Your task to perform on an android device: turn off location history Image 0: 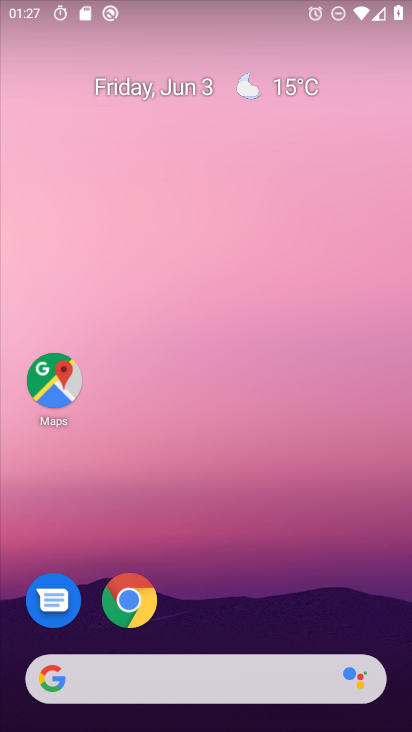
Step 0: drag from (207, 576) to (174, 3)
Your task to perform on an android device: turn off location history Image 1: 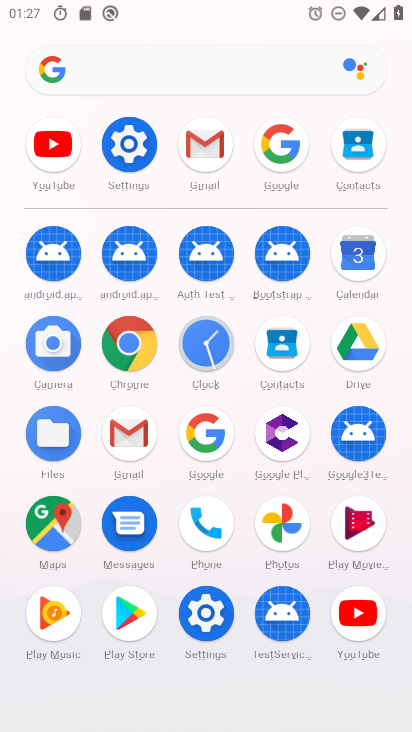
Step 1: click (126, 178)
Your task to perform on an android device: turn off location history Image 2: 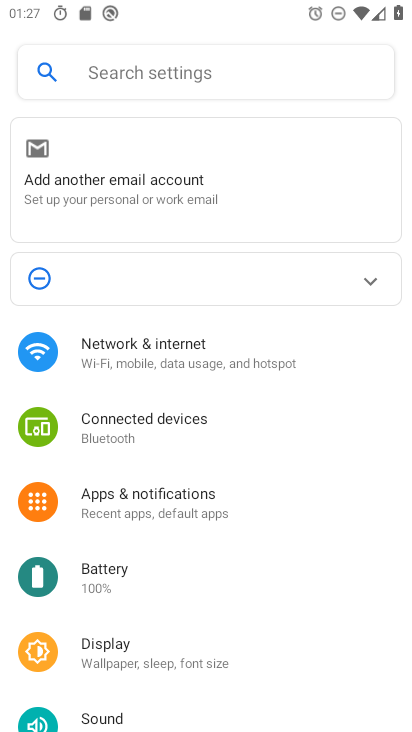
Step 2: drag from (204, 590) to (194, 114)
Your task to perform on an android device: turn off location history Image 3: 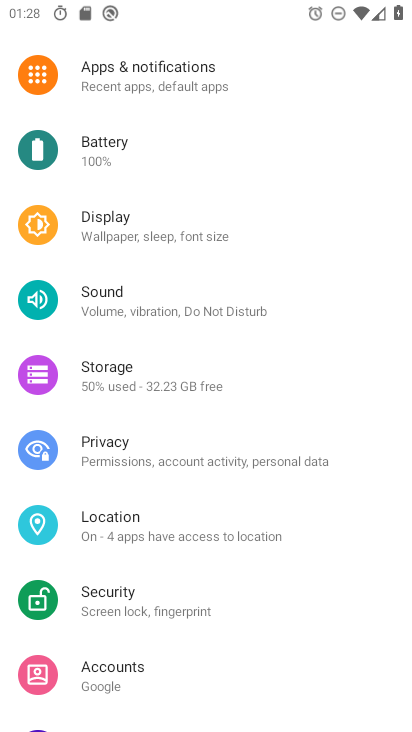
Step 3: click (160, 522)
Your task to perform on an android device: turn off location history Image 4: 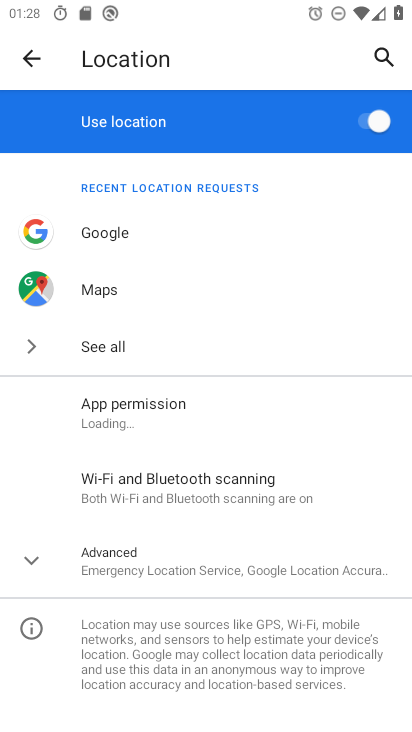
Step 4: click (106, 561)
Your task to perform on an android device: turn off location history Image 5: 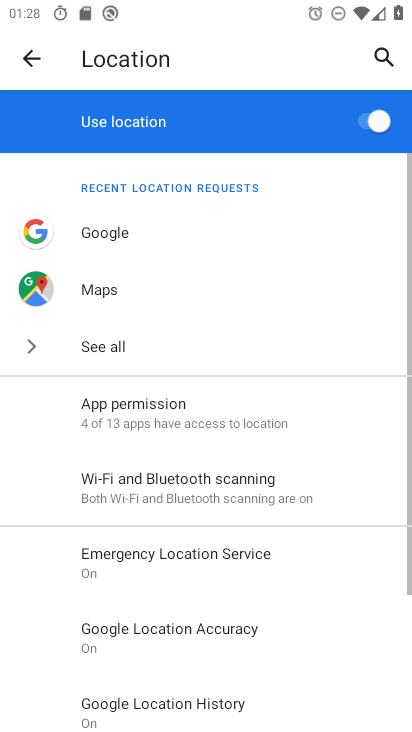
Step 5: drag from (236, 526) to (220, 335)
Your task to perform on an android device: turn off location history Image 6: 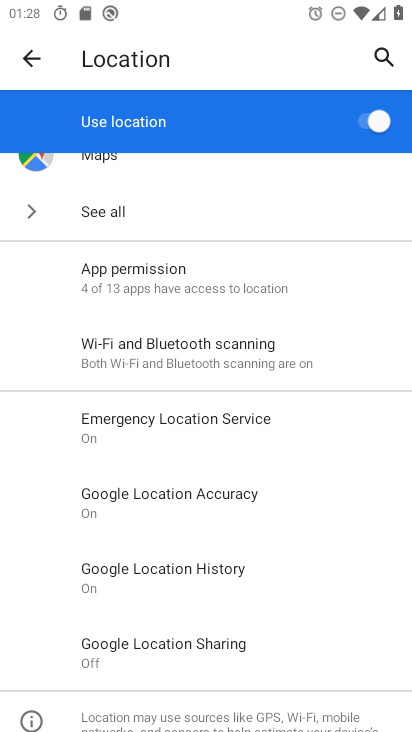
Step 6: click (194, 577)
Your task to perform on an android device: turn off location history Image 7: 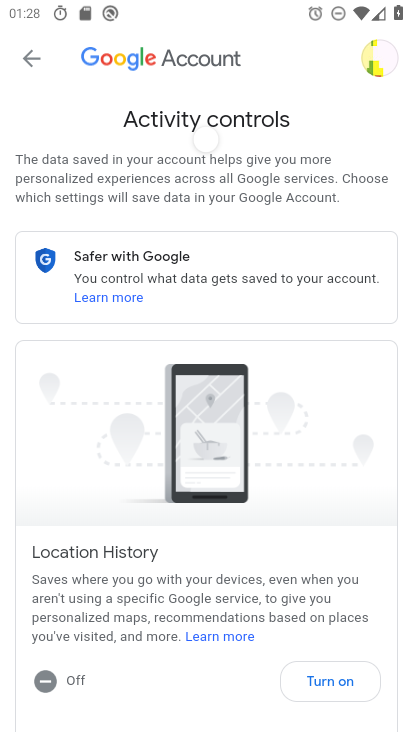
Step 7: task complete